Your task to perform on an android device: set the timer Image 0: 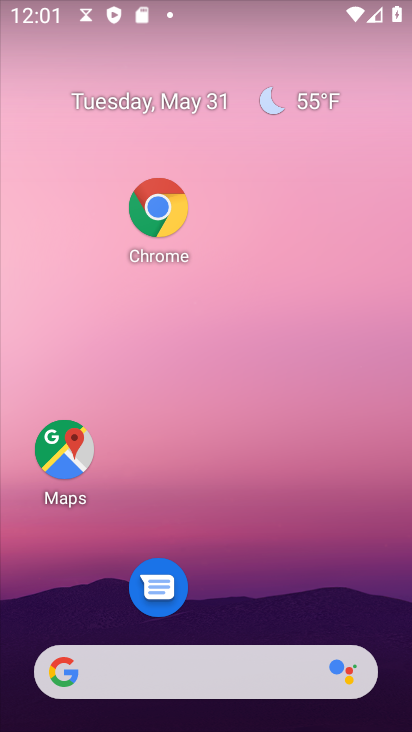
Step 0: drag from (273, 579) to (226, 88)
Your task to perform on an android device: set the timer Image 1: 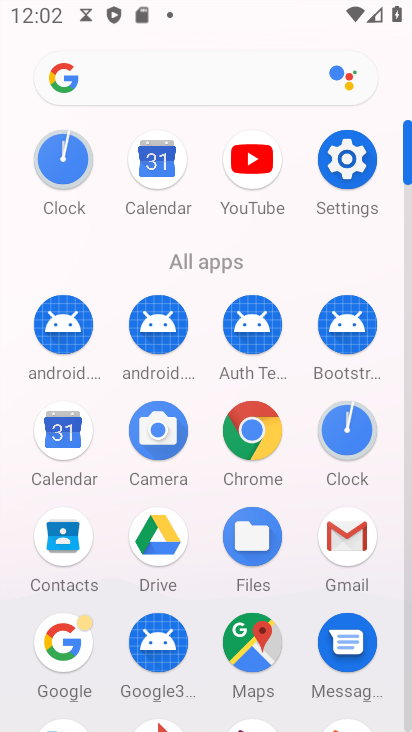
Step 1: click (351, 420)
Your task to perform on an android device: set the timer Image 2: 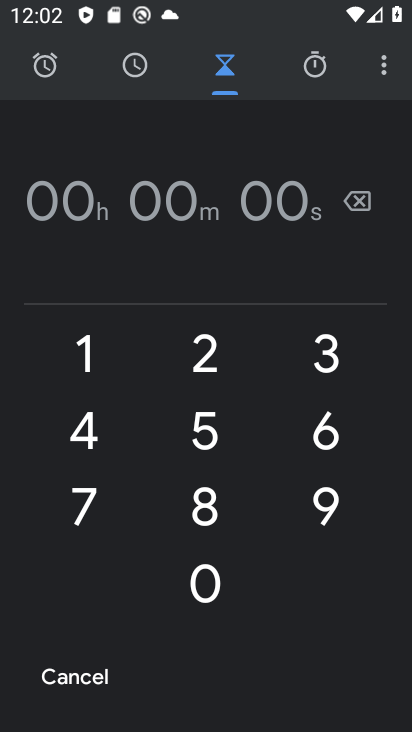
Step 2: click (87, 372)
Your task to perform on an android device: set the timer Image 3: 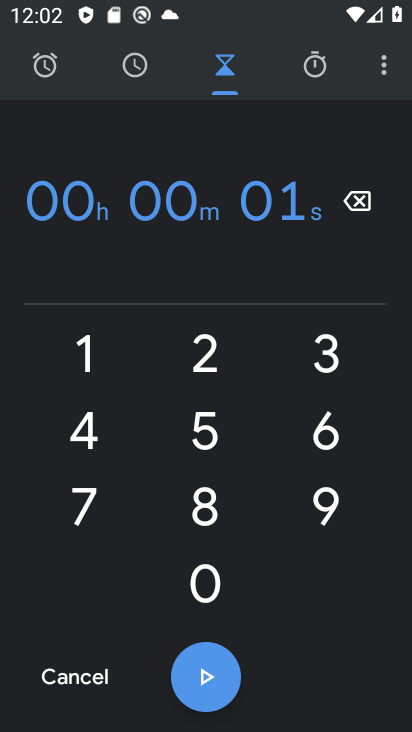
Step 3: click (206, 432)
Your task to perform on an android device: set the timer Image 4: 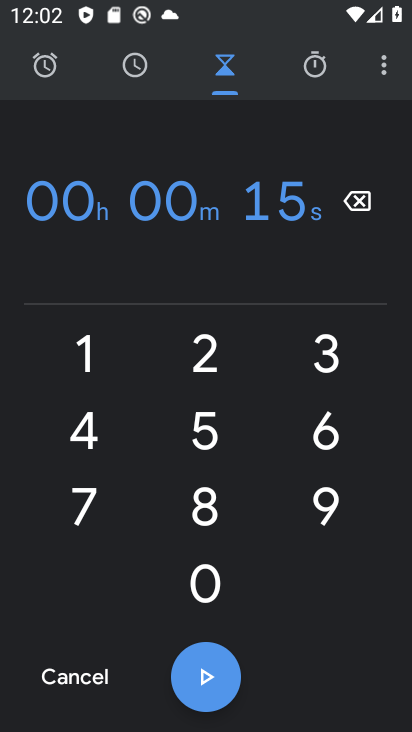
Step 4: click (312, 505)
Your task to perform on an android device: set the timer Image 5: 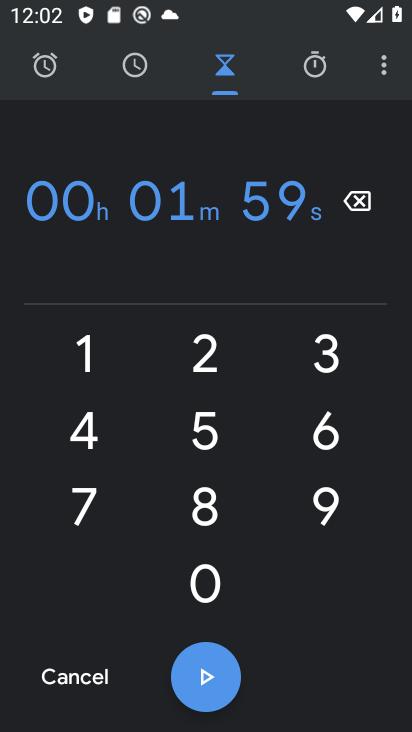
Step 5: click (209, 579)
Your task to perform on an android device: set the timer Image 6: 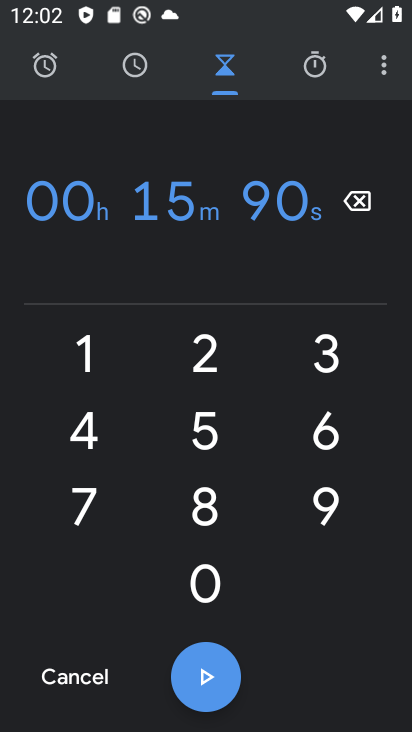
Step 6: click (202, 522)
Your task to perform on an android device: set the timer Image 7: 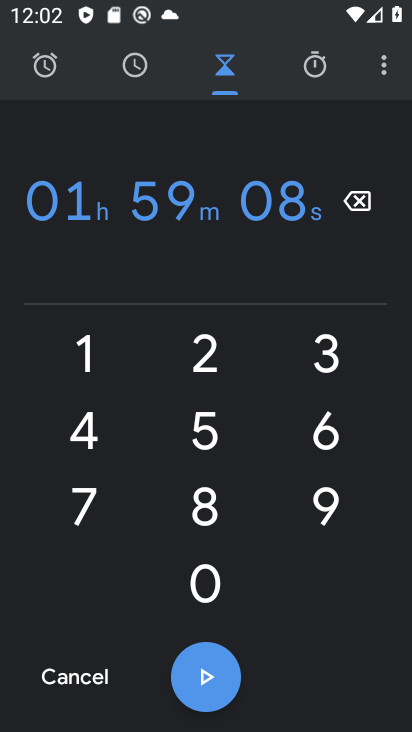
Step 7: click (216, 676)
Your task to perform on an android device: set the timer Image 8: 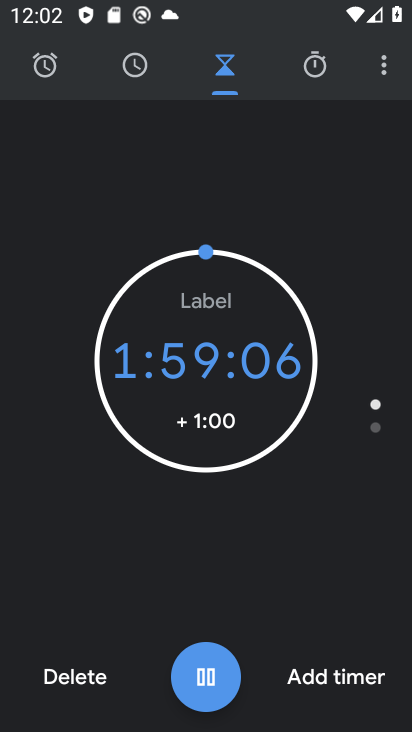
Step 8: click (337, 682)
Your task to perform on an android device: set the timer Image 9: 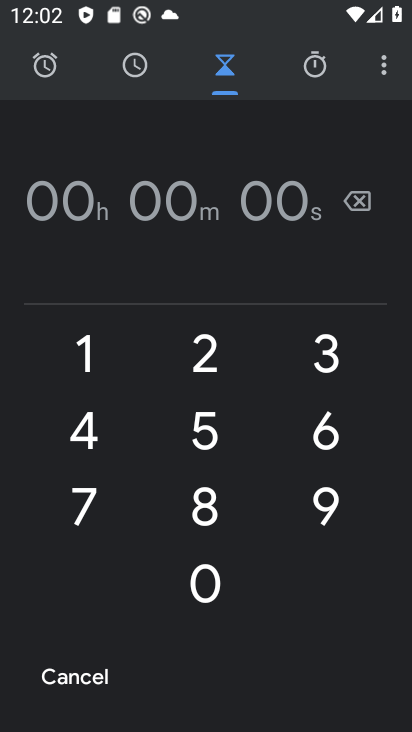
Step 9: task complete